Your task to perform on an android device: delete location history Image 0: 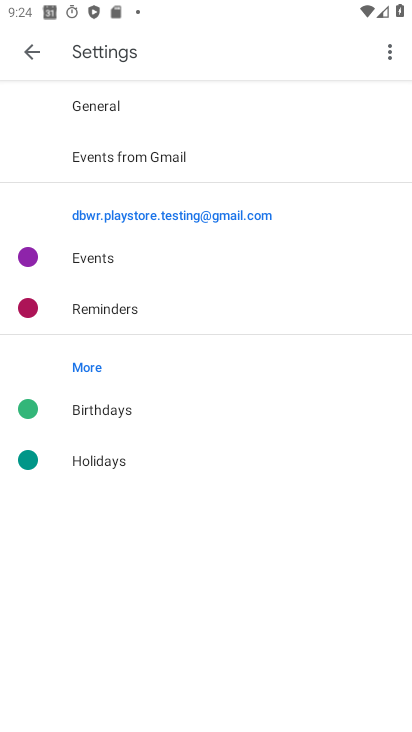
Step 0: press home button
Your task to perform on an android device: delete location history Image 1: 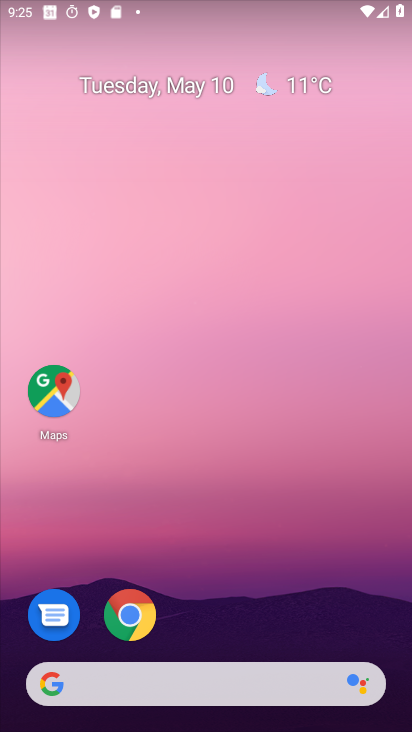
Step 1: drag from (228, 636) to (230, 91)
Your task to perform on an android device: delete location history Image 2: 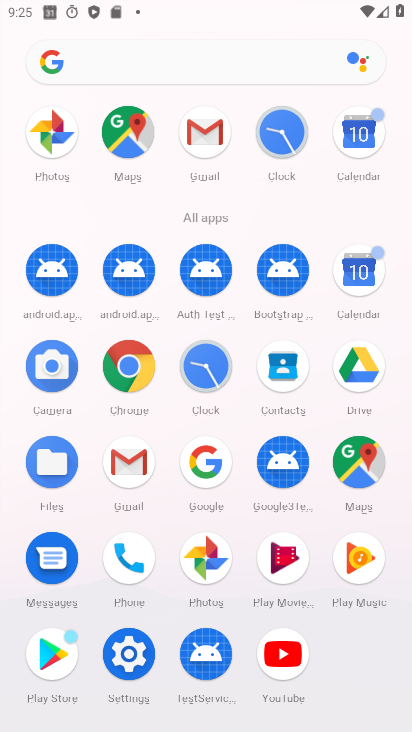
Step 2: click (361, 457)
Your task to perform on an android device: delete location history Image 3: 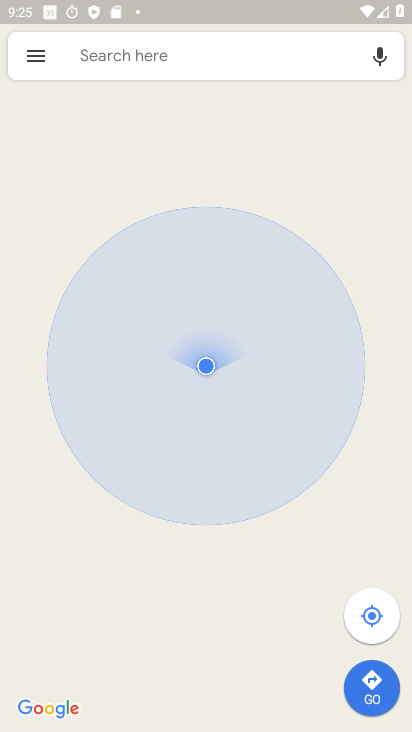
Step 3: click (36, 53)
Your task to perform on an android device: delete location history Image 4: 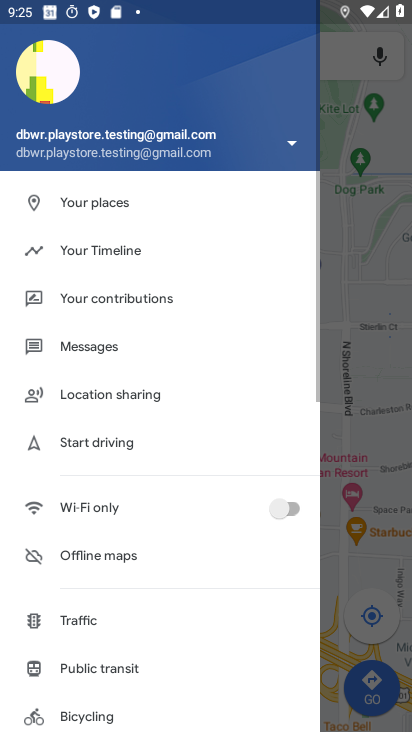
Step 4: click (124, 246)
Your task to perform on an android device: delete location history Image 5: 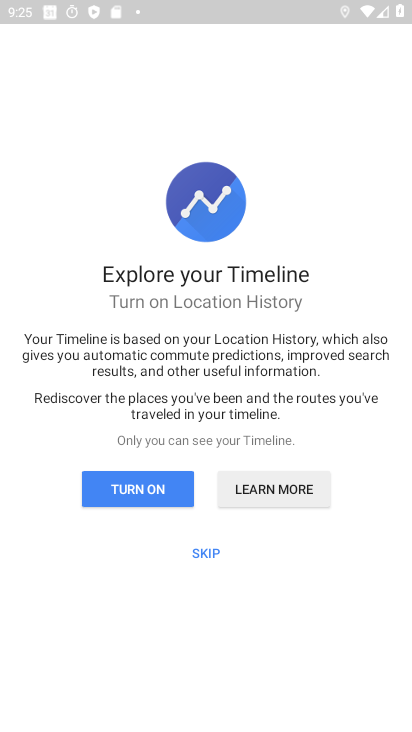
Step 5: click (137, 484)
Your task to perform on an android device: delete location history Image 6: 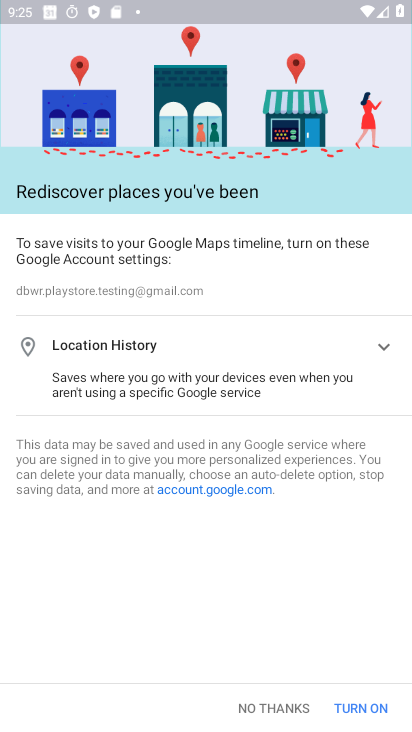
Step 6: click (360, 708)
Your task to perform on an android device: delete location history Image 7: 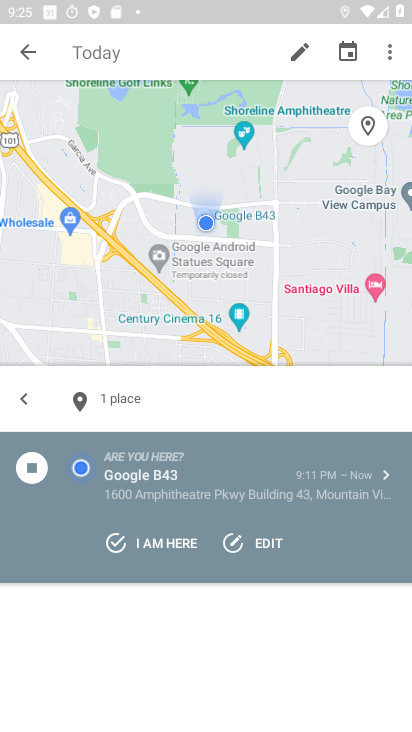
Step 7: click (390, 50)
Your task to perform on an android device: delete location history Image 8: 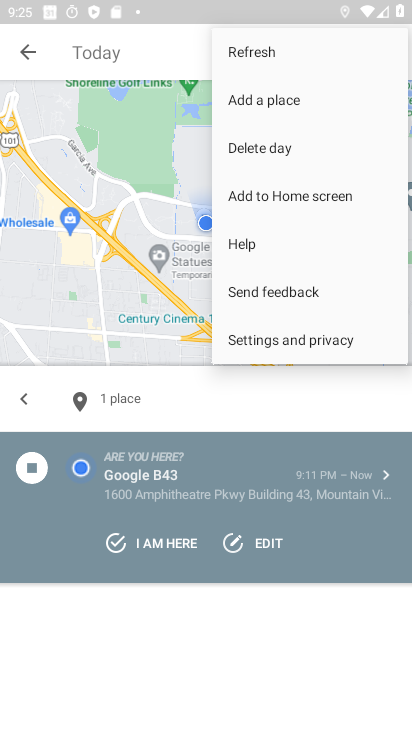
Step 8: click (287, 336)
Your task to perform on an android device: delete location history Image 9: 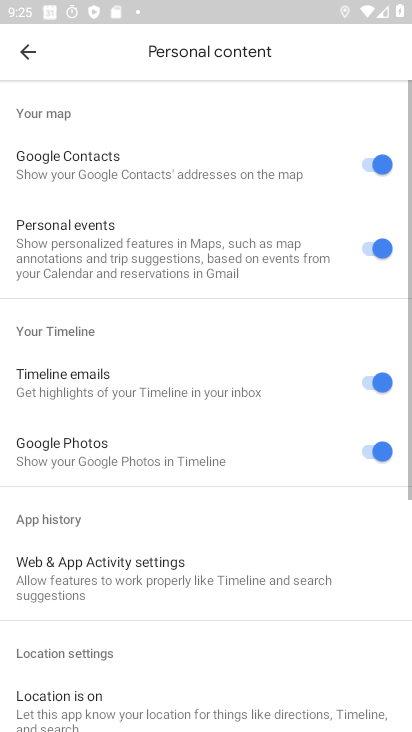
Step 9: drag from (154, 639) to (165, 89)
Your task to perform on an android device: delete location history Image 10: 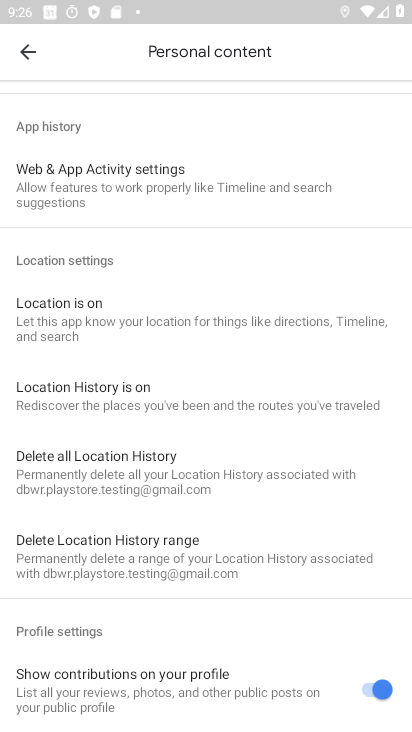
Step 10: click (124, 466)
Your task to perform on an android device: delete location history Image 11: 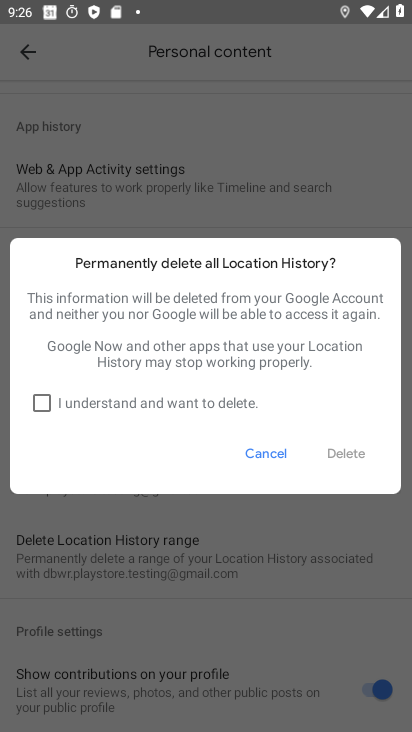
Step 11: click (47, 398)
Your task to perform on an android device: delete location history Image 12: 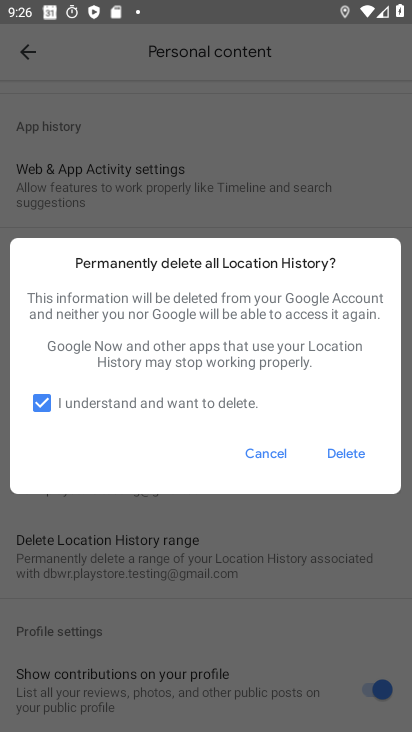
Step 12: click (344, 450)
Your task to perform on an android device: delete location history Image 13: 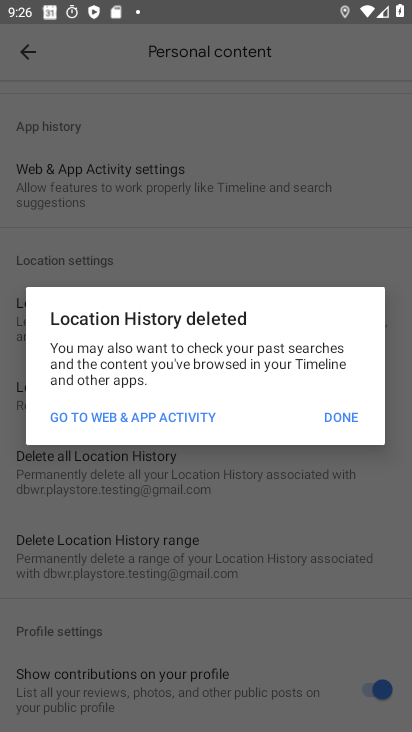
Step 13: click (344, 412)
Your task to perform on an android device: delete location history Image 14: 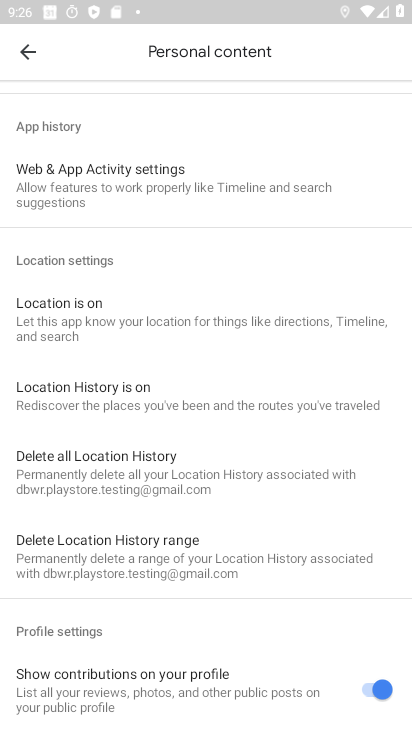
Step 14: task complete